Your task to perform on an android device: Check the weather Image 0: 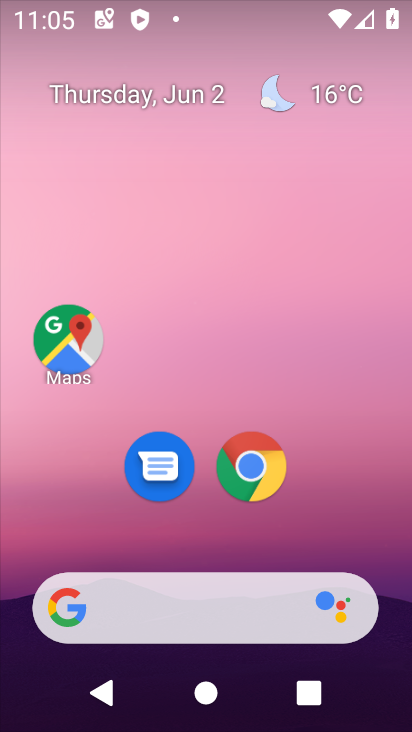
Step 0: drag from (241, 266) to (251, 199)
Your task to perform on an android device: Check the weather Image 1: 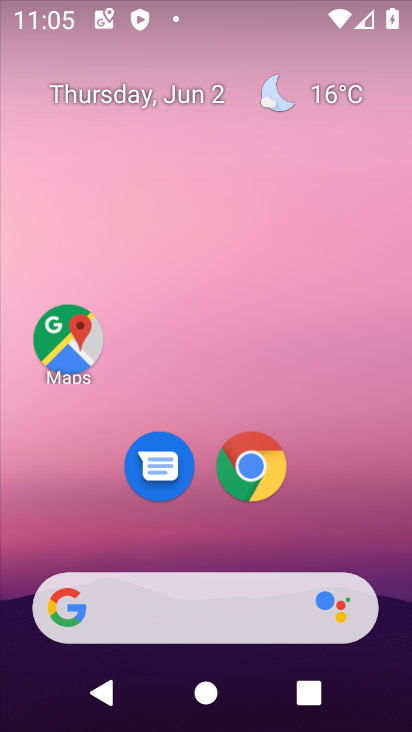
Step 1: drag from (196, 539) to (223, 119)
Your task to perform on an android device: Check the weather Image 2: 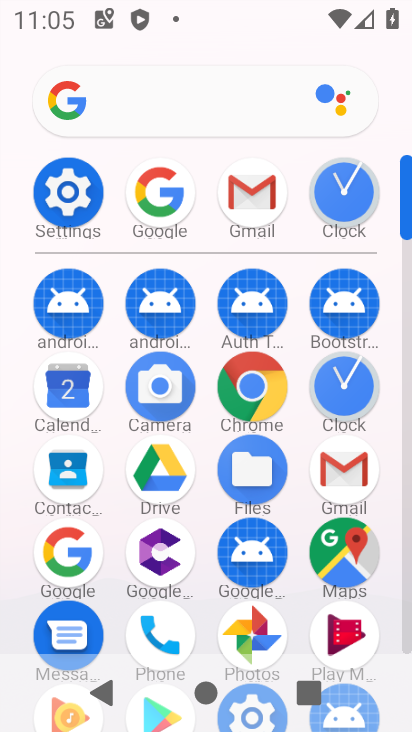
Step 2: click (165, 222)
Your task to perform on an android device: Check the weather Image 3: 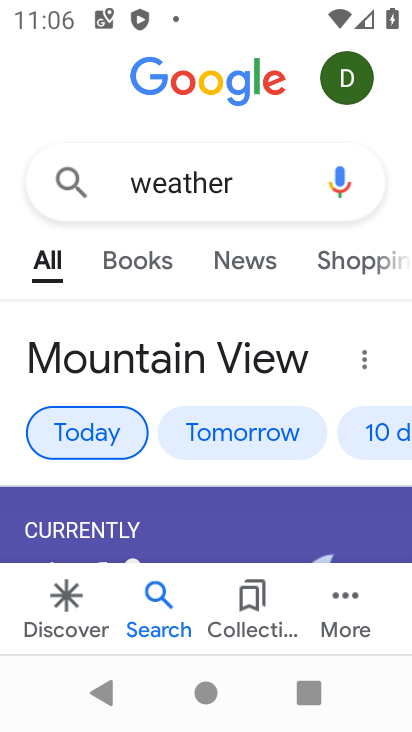
Step 3: task complete